Your task to perform on an android device: Add panasonic triple a to the cart on walmart.com Image 0: 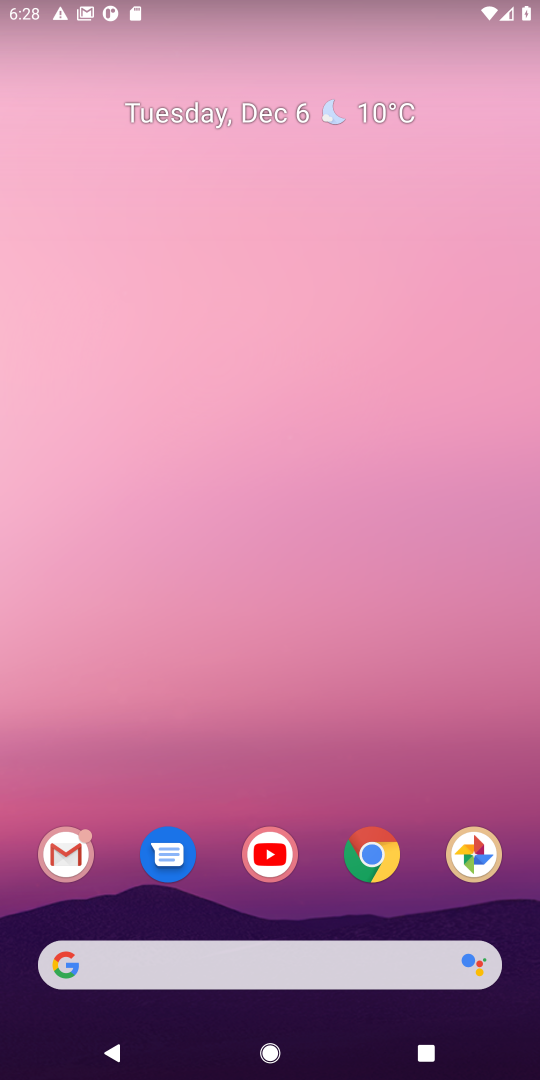
Step 0: click (378, 853)
Your task to perform on an android device: Add panasonic triple a to the cart on walmart.com Image 1: 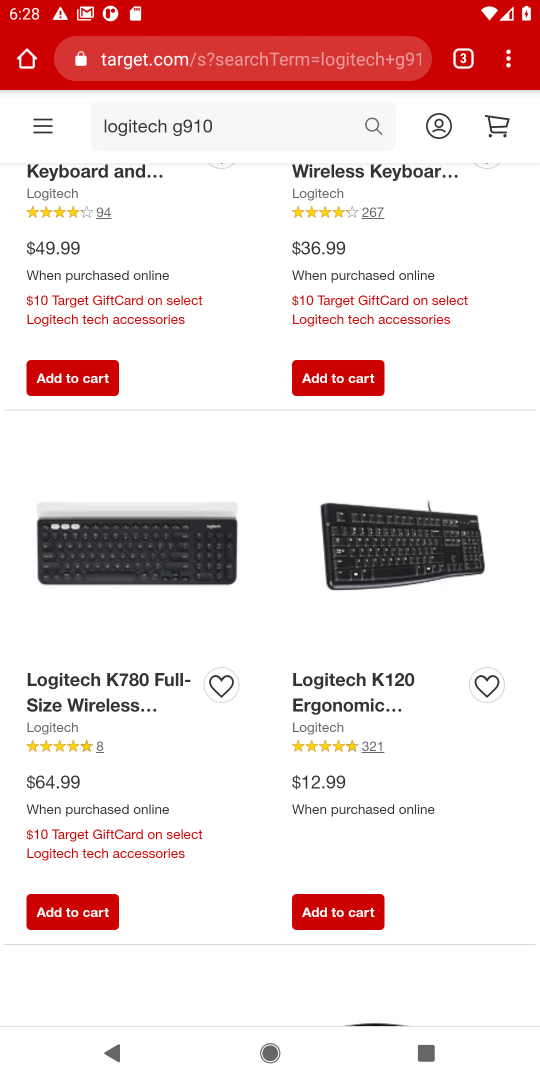
Step 1: click (461, 61)
Your task to perform on an android device: Add panasonic triple a to the cart on walmart.com Image 2: 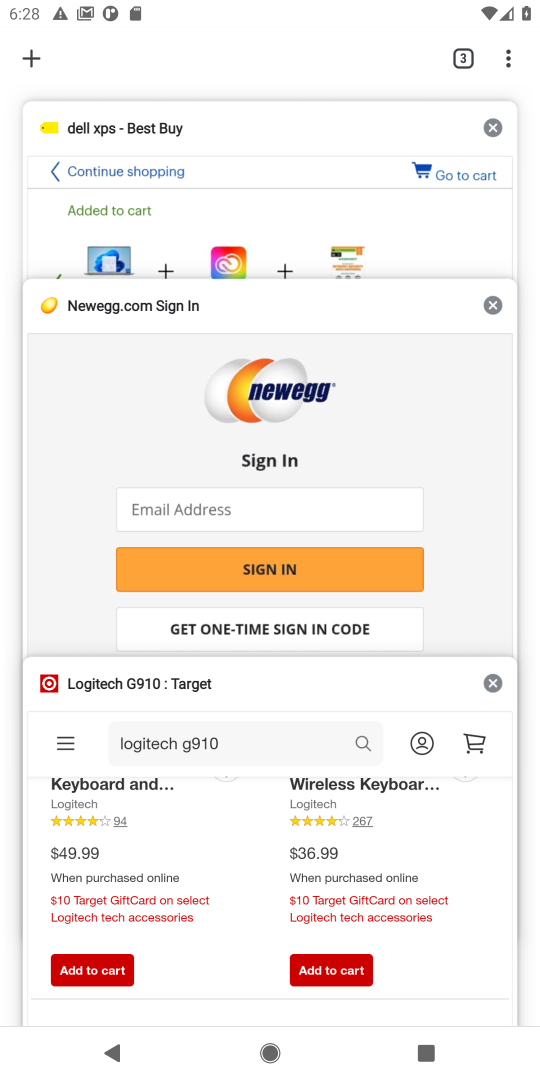
Step 2: click (20, 59)
Your task to perform on an android device: Add panasonic triple a to the cart on walmart.com Image 3: 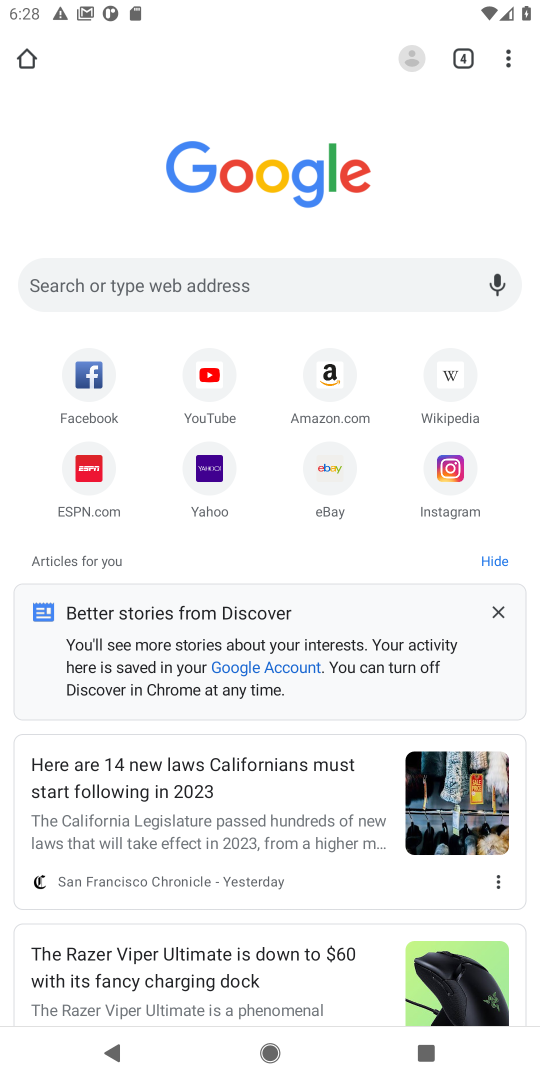
Step 3: click (160, 274)
Your task to perform on an android device: Add panasonic triple a to the cart on walmart.com Image 4: 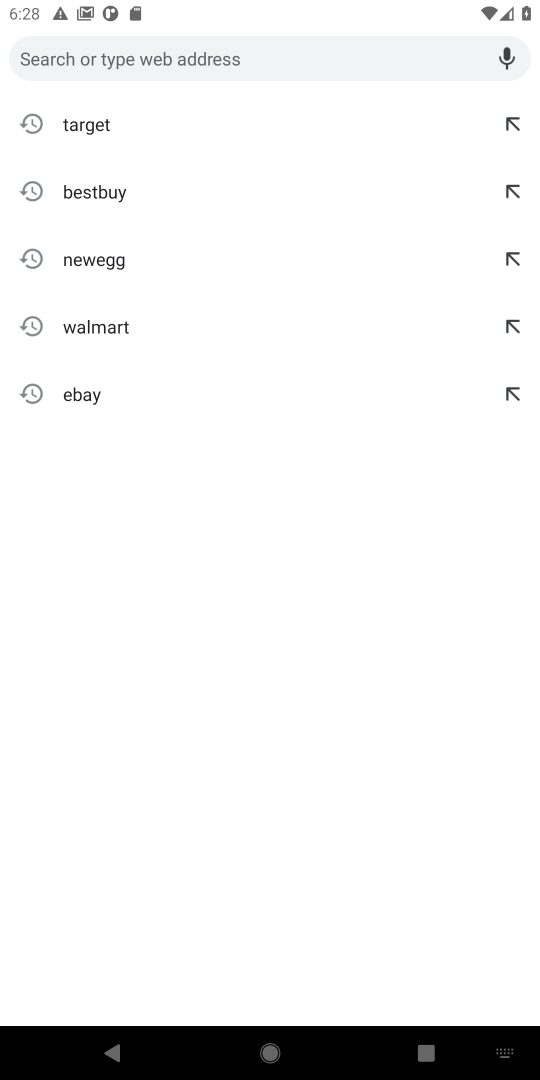
Step 4: click (103, 323)
Your task to perform on an android device: Add panasonic triple a to the cart on walmart.com Image 5: 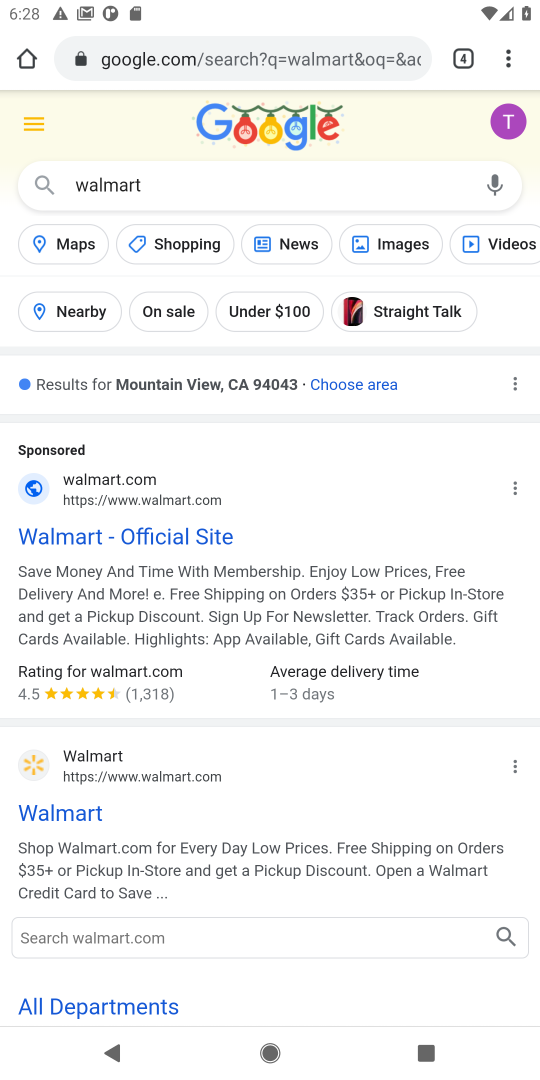
Step 5: click (75, 936)
Your task to perform on an android device: Add panasonic triple a to the cart on walmart.com Image 6: 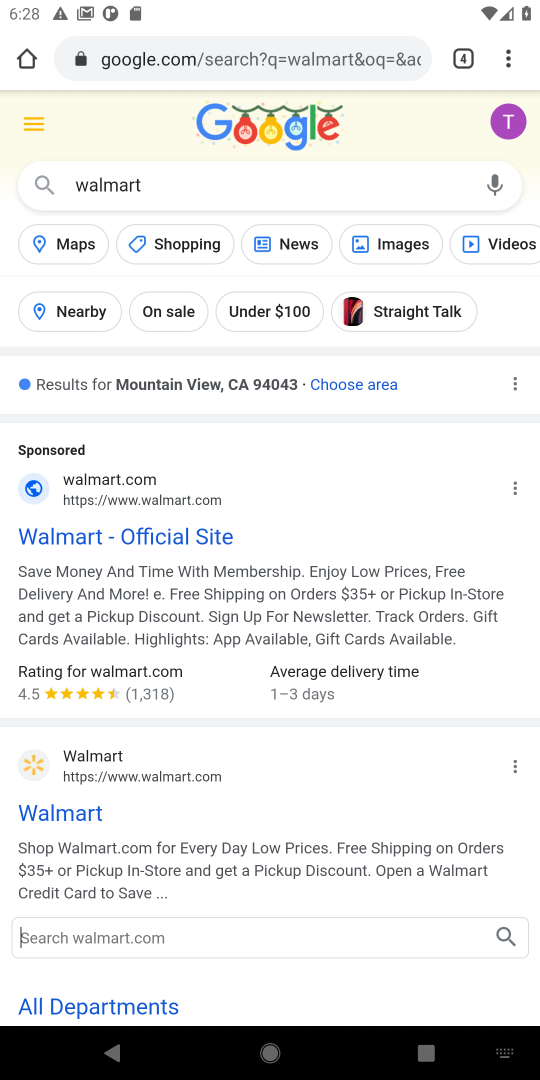
Step 6: type "panasonic triple a"
Your task to perform on an android device: Add panasonic triple a to the cart on walmart.com Image 7: 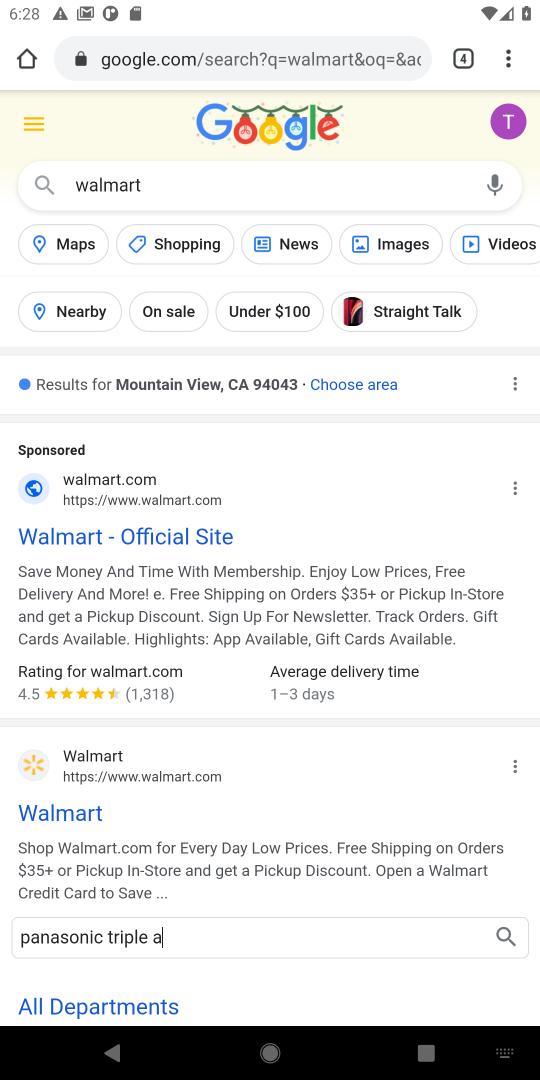
Step 7: click (504, 926)
Your task to perform on an android device: Add panasonic triple a to the cart on walmart.com Image 8: 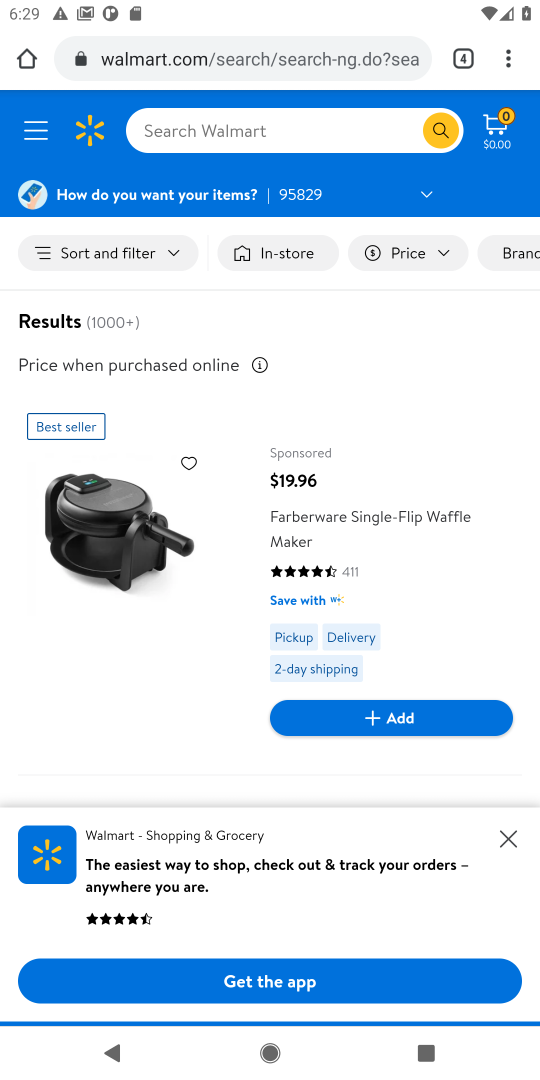
Step 8: click (285, 905)
Your task to perform on an android device: Add panasonic triple a to the cart on walmart.com Image 9: 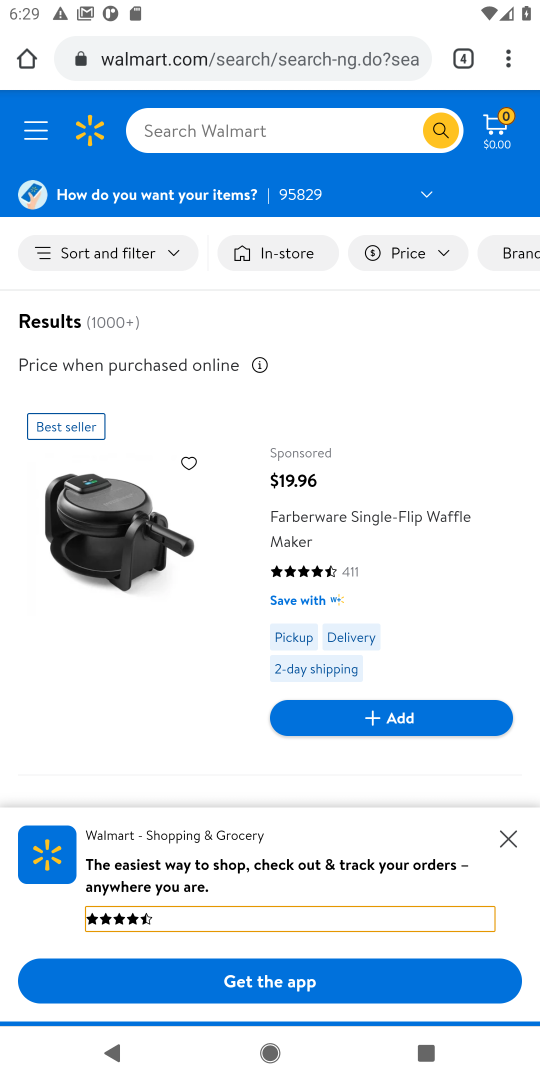
Step 9: click (516, 830)
Your task to perform on an android device: Add panasonic triple a to the cart on walmart.com Image 10: 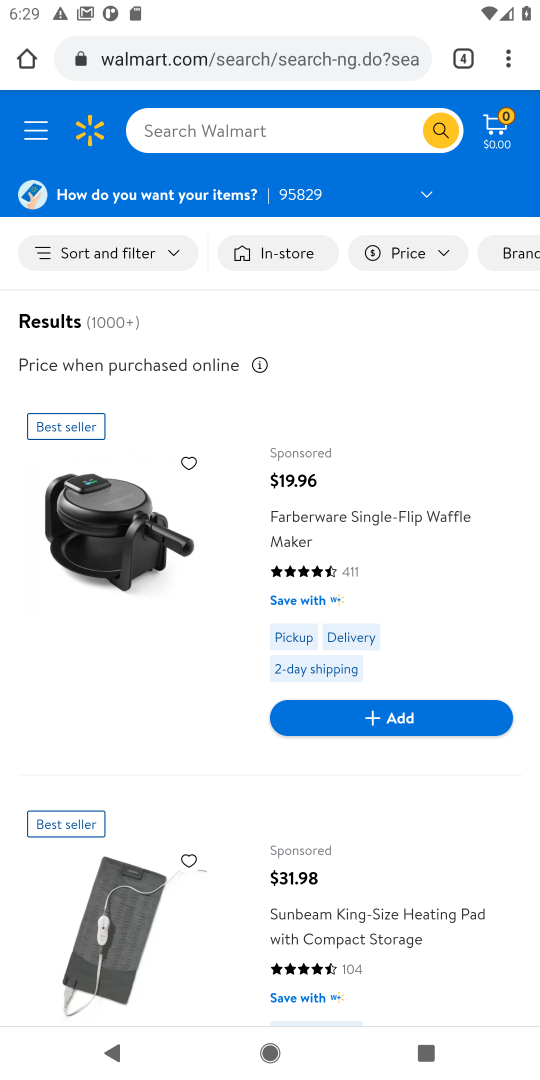
Step 10: drag from (232, 916) to (328, 229)
Your task to perform on an android device: Add panasonic triple a to the cart on walmart.com Image 11: 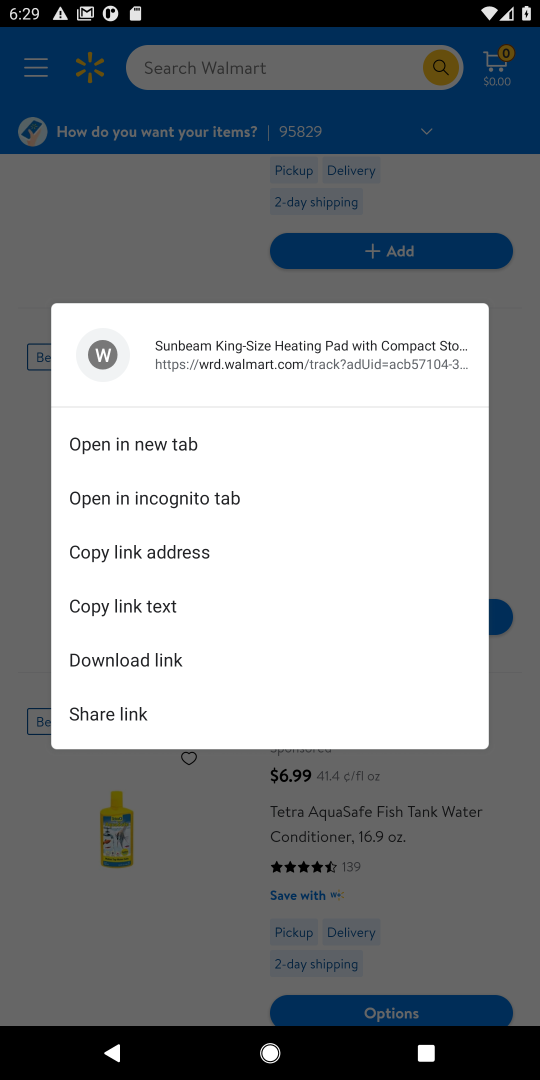
Step 11: click (198, 807)
Your task to perform on an android device: Add panasonic triple a to the cart on walmart.com Image 12: 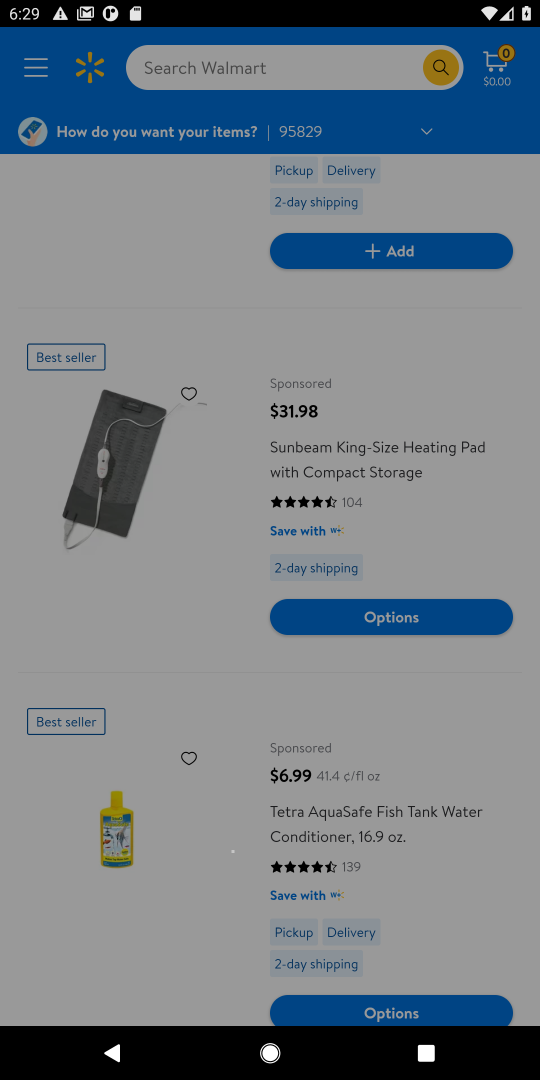
Step 12: drag from (198, 807) to (296, 131)
Your task to perform on an android device: Add panasonic triple a to the cart on walmart.com Image 13: 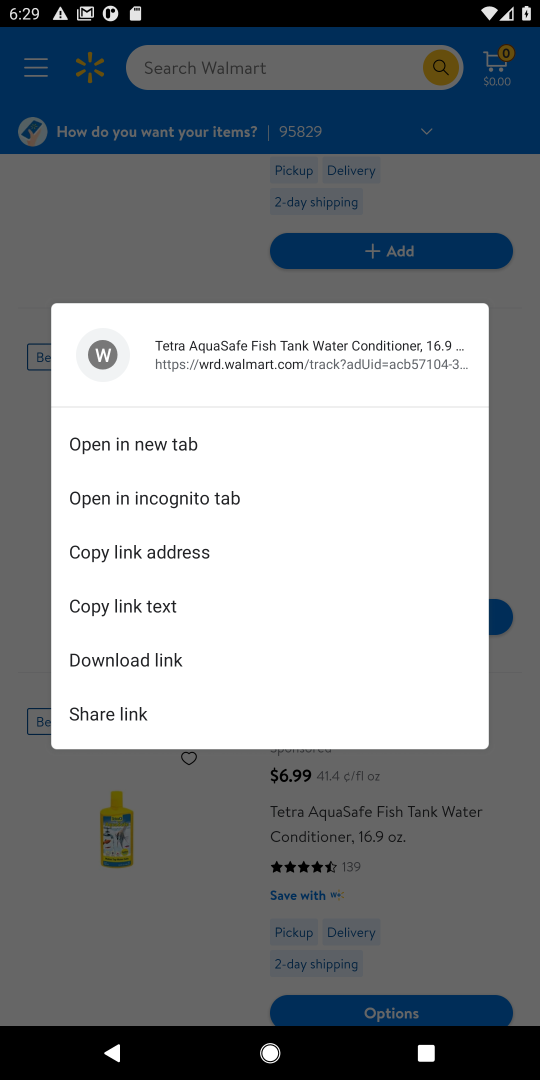
Step 13: click (226, 798)
Your task to perform on an android device: Add panasonic triple a to the cart on walmart.com Image 14: 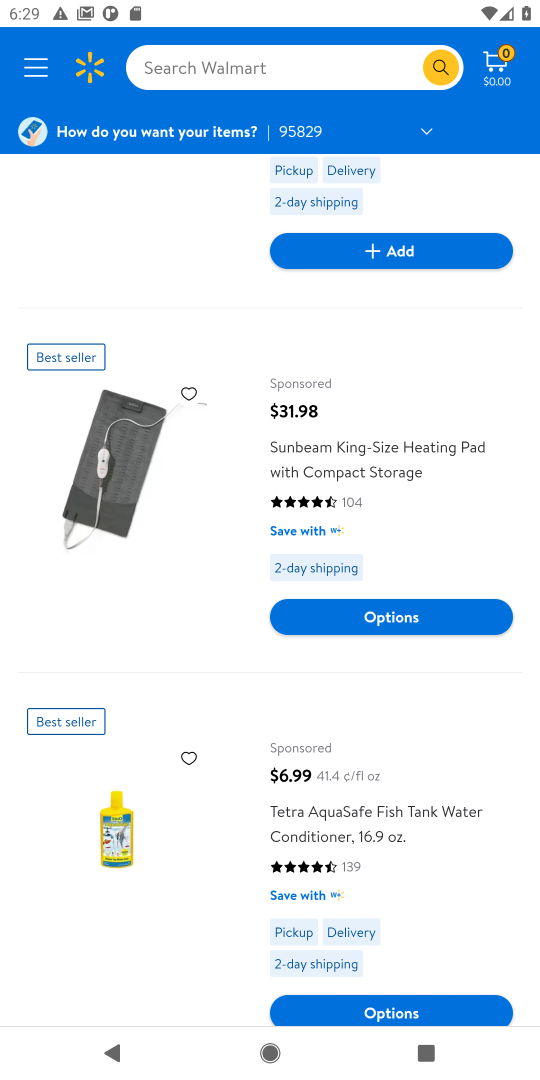
Step 14: drag from (226, 798) to (269, 4)
Your task to perform on an android device: Add panasonic triple a to the cart on walmart.com Image 15: 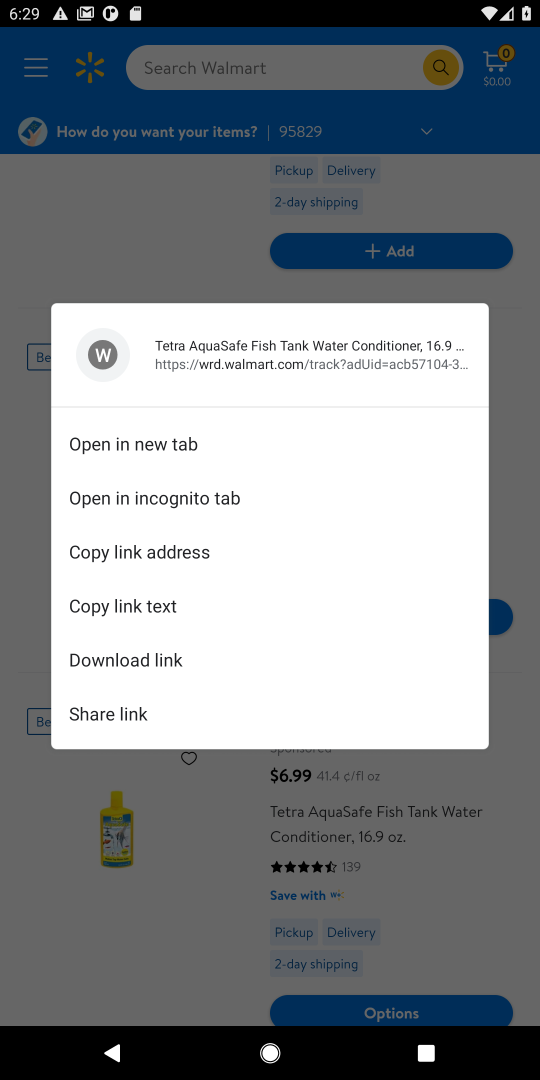
Step 15: click (208, 889)
Your task to perform on an android device: Add panasonic triple a to the cart on walmart.com Image 16: 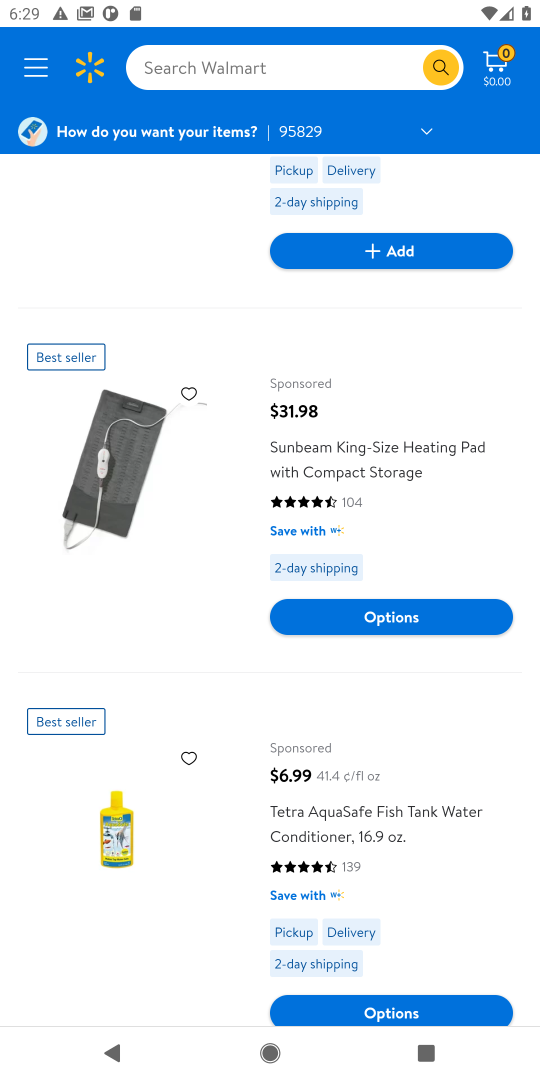
Step 16: task complete